Your task to perform on an android device: open app "The Home Depot" Image 0: 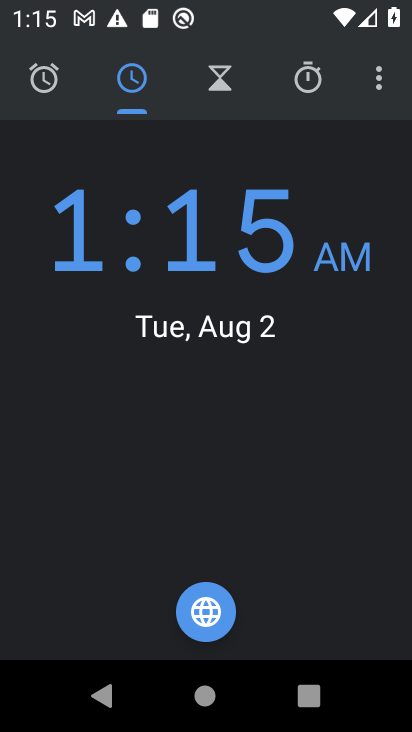
Step 0: press home button
Your task to perform on an android device: open app "The Home Depot" Image 1: 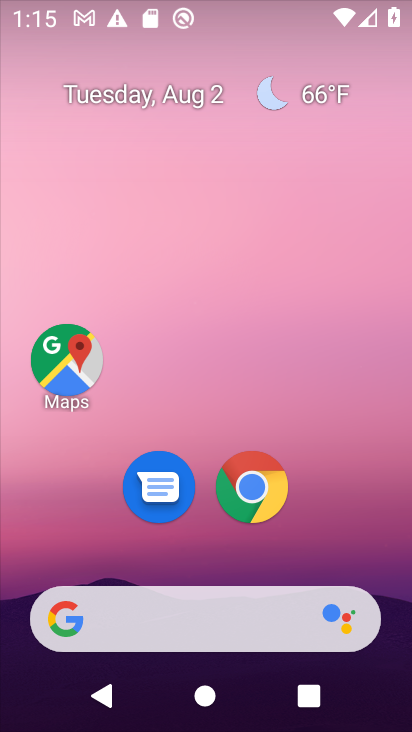
Step 1: drag from (188, 564) to (148, 194)
Your task to perform on an android device: open app "The Home Depot" Image 2: 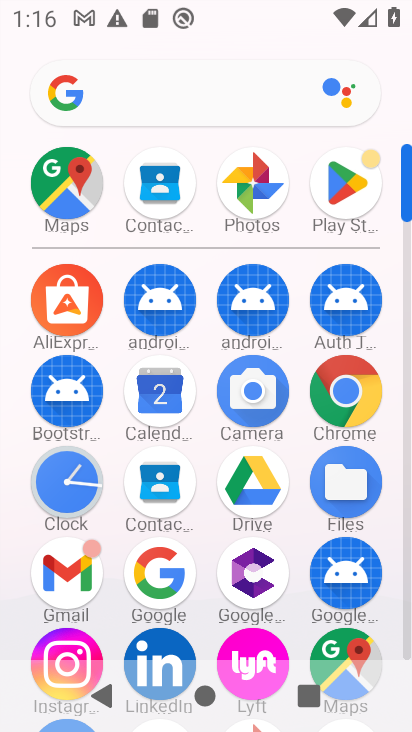
Step 2: click (320, 202)
Your task to perform on an android device: open app "The Home Depot" Image 3: 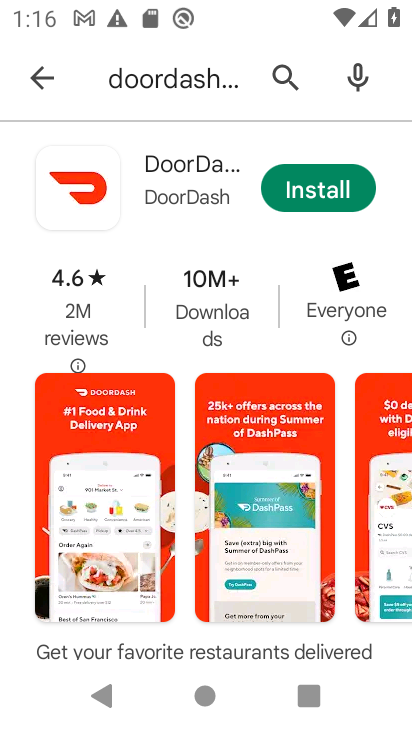
Step 3: click (54, 87)
Your task to perform on an android device: open app "The Home Depot" Image 4: 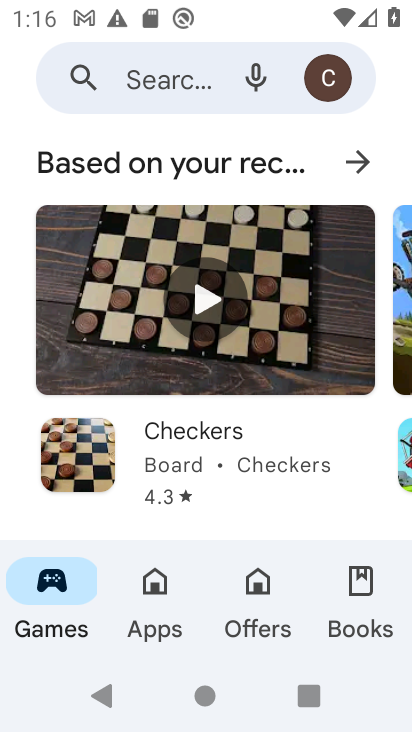
Step 4: click (92, 72)
Your task to perform on an android device: open app "The Home Depot" Image 5: 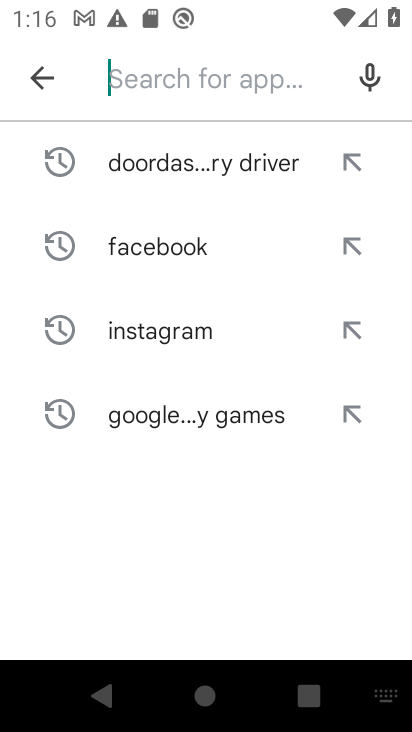
Step 5: type "The Home Depot"
Your task to perform on an android device: open app "The Home Depot" Image 6: 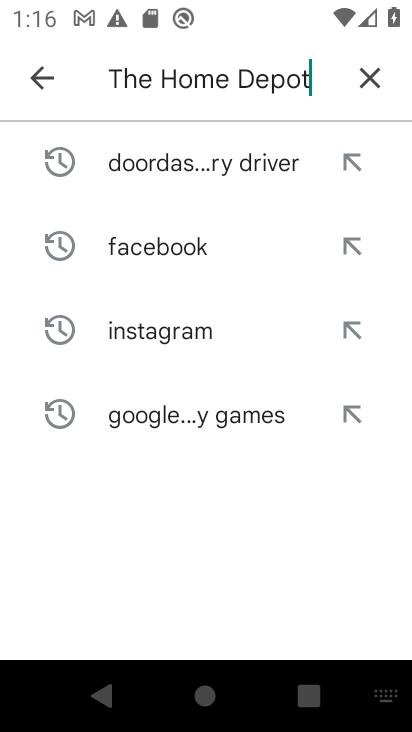
Step 6: type ""
Your task to perform on an android device: open app "The Home Depot" Image 7: 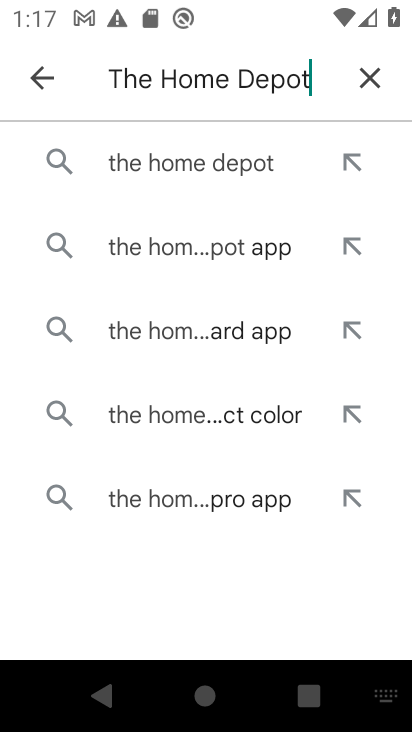
Step 7: click (228, 150)
Your task to perform on an android device: open app "The Home Depot" Image 8: 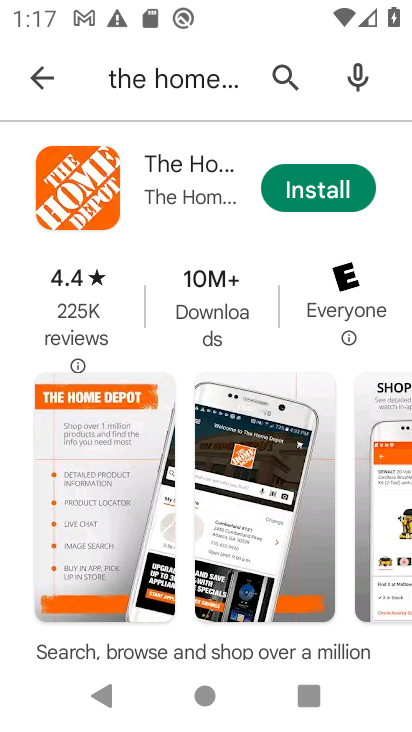
Step 8: task complete